Your task to perform on an android device: turn on wifi Image 0: 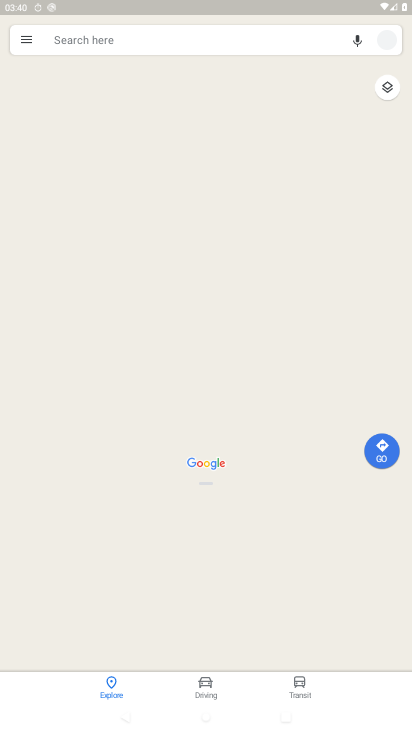
Step 0: click (187, 38)
Your task to perform on an android device: turn on wifi Image 1: 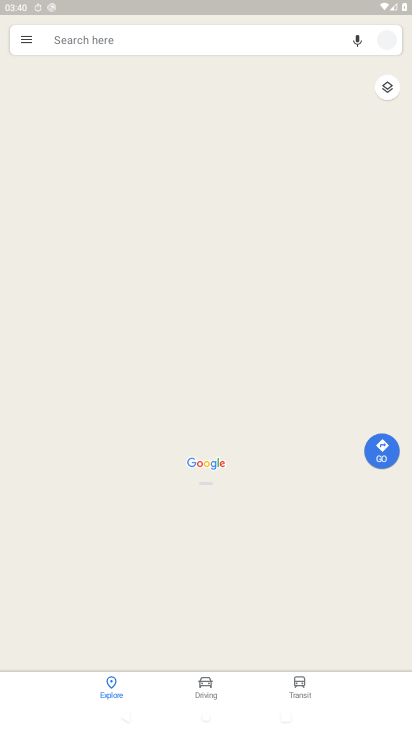
Step 1: press home button
Your task to perform on an android device: turn on wifi Image 2: 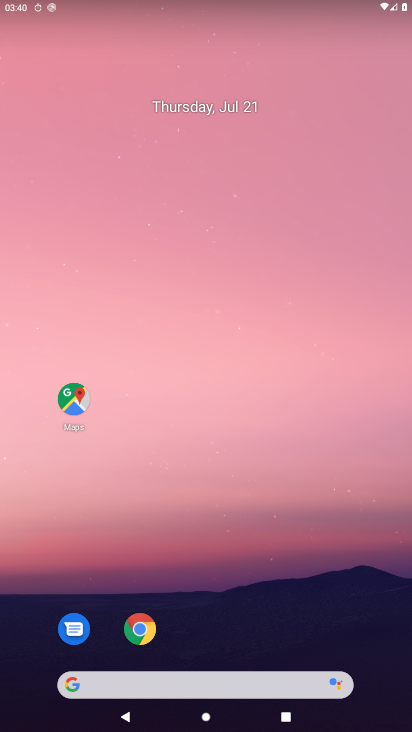
Step 2: drag from (29, 705) to (224, 44)
Your task to perform on an android device: turn on wifi Image 3: 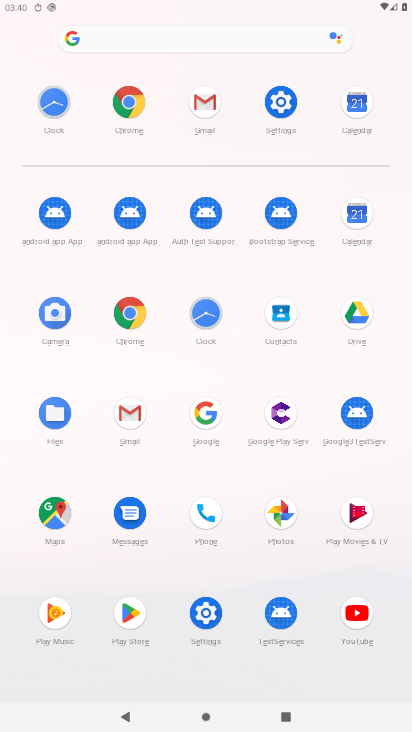
Step 3: click (210, 625)
Your task to perform on an android device: turn on wifi Image 4: 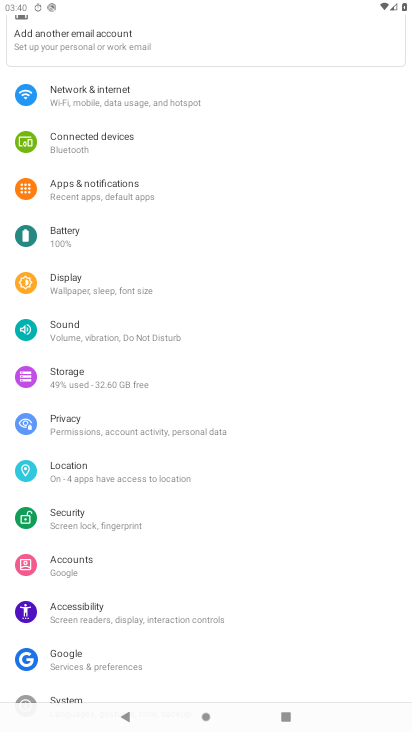
Step 4: click (112, 106)
Your task to perform on an android device: turn on wifi Image 5: 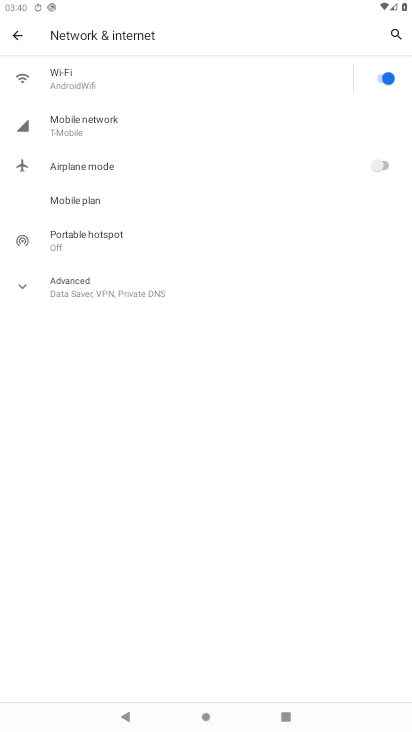
Step 5: task complete